Your task to perform on an android device: find photos in the google photos app Image 0: 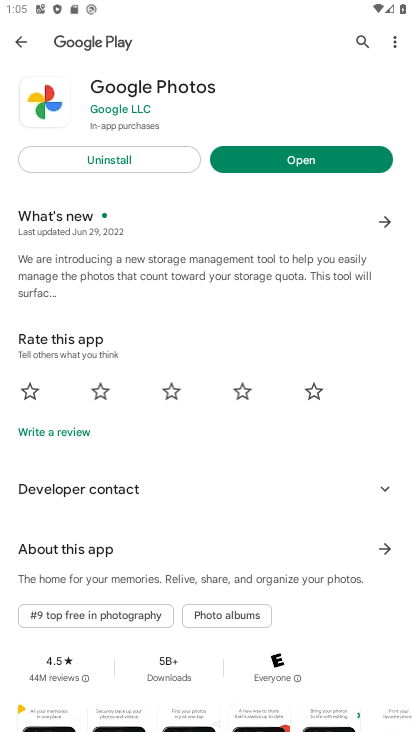
Step 0: click (364, 152)
Your task to perform on an android device: find photos in the google photos app Image 1: 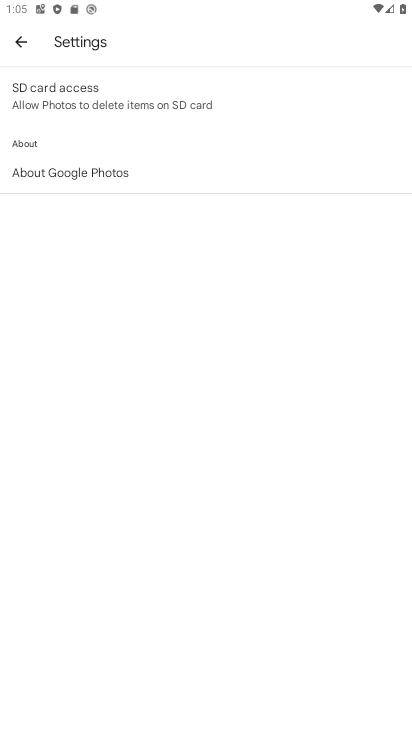
Step 1: click (23, 36)
Your task to perform on an android device: find photos in the google photos app Image 2: 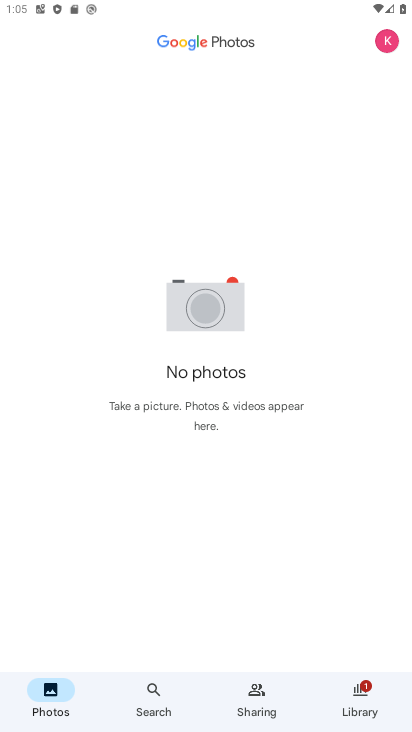
Step 2: task complete